Your task to perform on an android device: Search for Italian restaurants on Maps Image 0: 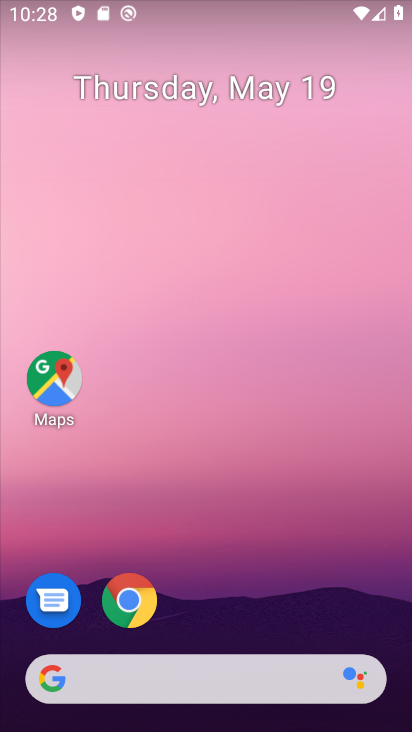
Step 0: press home button
Your task to perform on an android device: Search for Italian restaurants on Maps Image 1: 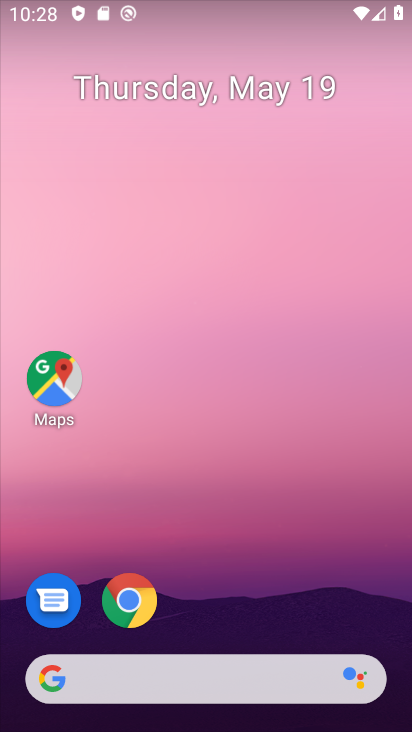
Step 1: drag from (293, 614) to (303, 229)
Your task to perform on an android device: Search for Italian restaurants on Maps Image 2: 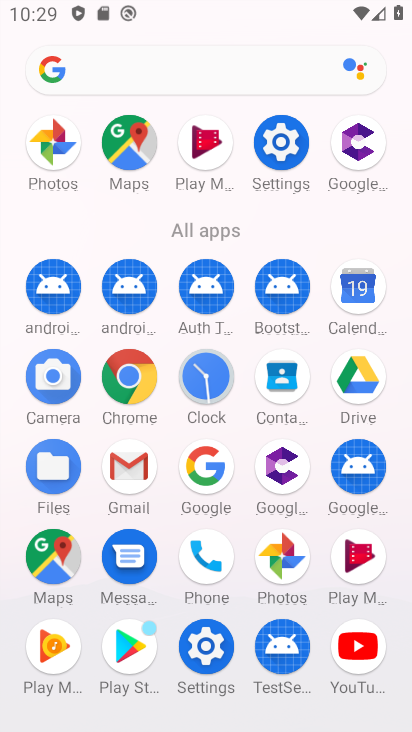
Step 2: click (65, 566)
Your task to perform on an android device: Search for Italian restaurants on Maps Image 3: 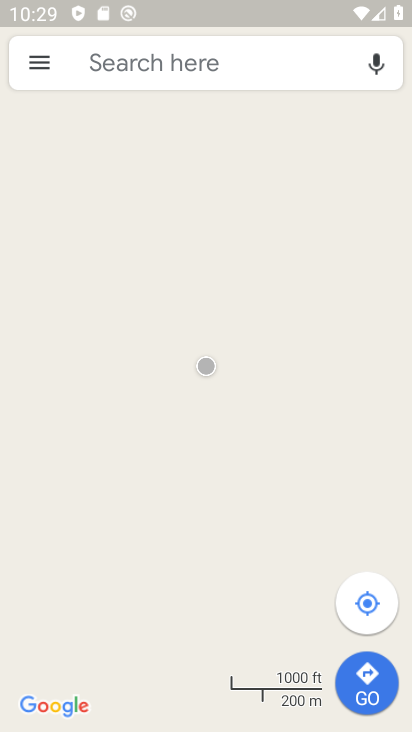
Step 3: click (114, 70)
Your task to perform on an android device: Search for Italian restaurants on Maps Image 4: 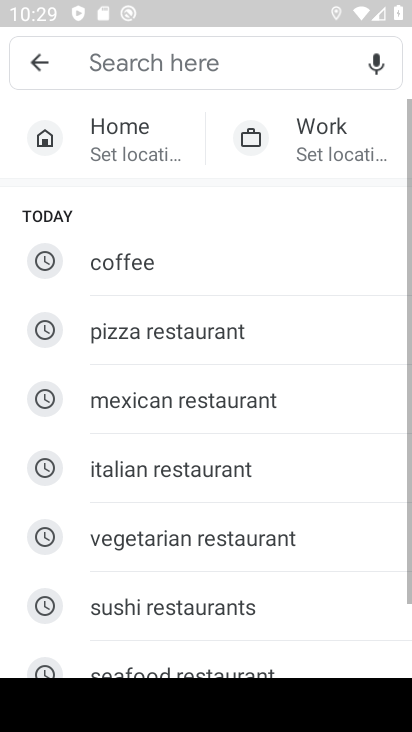
Step 4: click (200, 67)
Your task to perform on an android device: Search for Italian restaurants on Maps Image 5: 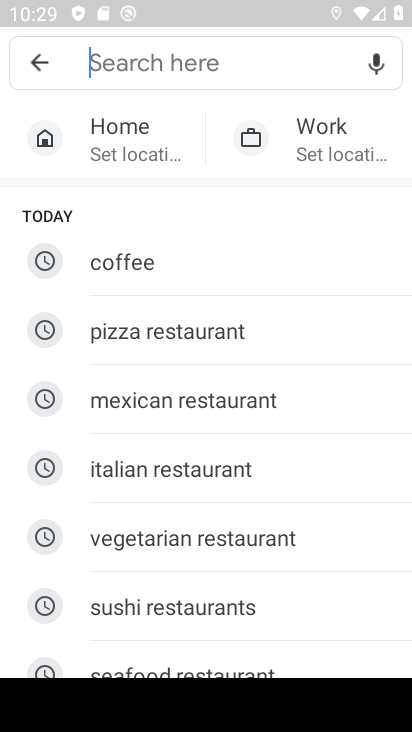
Step 5: type " Italian restaurants "
Your task to perform on an android device: Search for Italian restaurants on Maps Image 6: 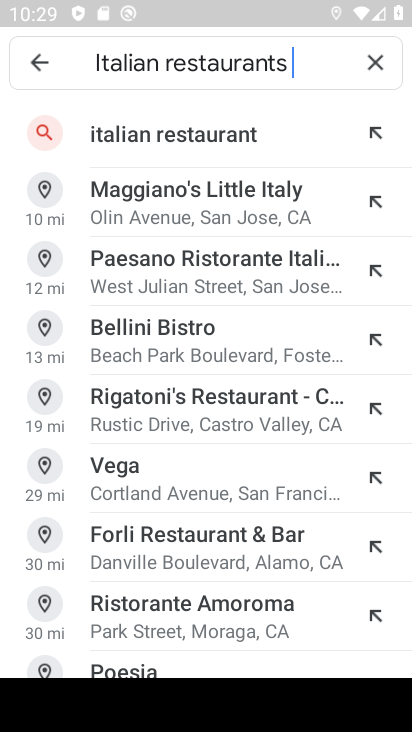
Step 6: click (259, 139)
Your task to perform on an android device: Search for Italian restaurants on Maps Image 7: 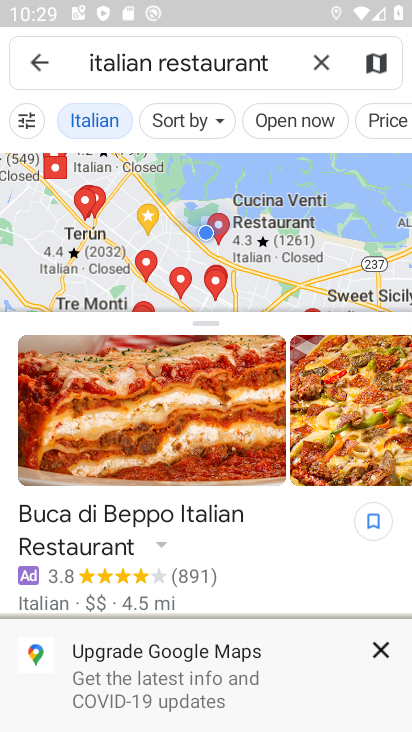
Step 7: task complete